Your task to perform on an android device: turn pop-ups off in chrome Image 0: 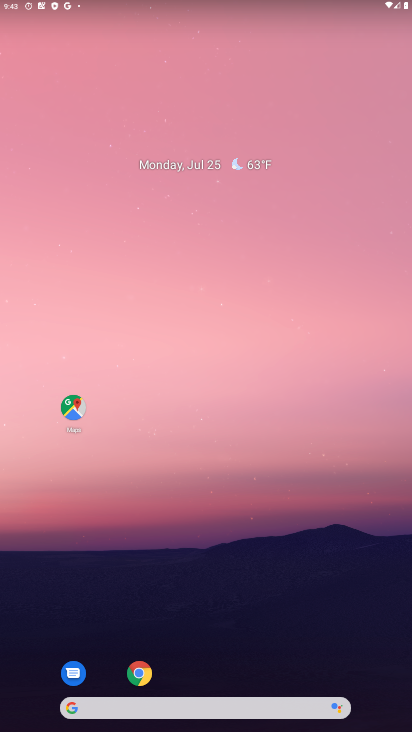
Step 0: click (130, 680)
Your task to perform on an android device: turn pop-ups off in chrome Image 1: 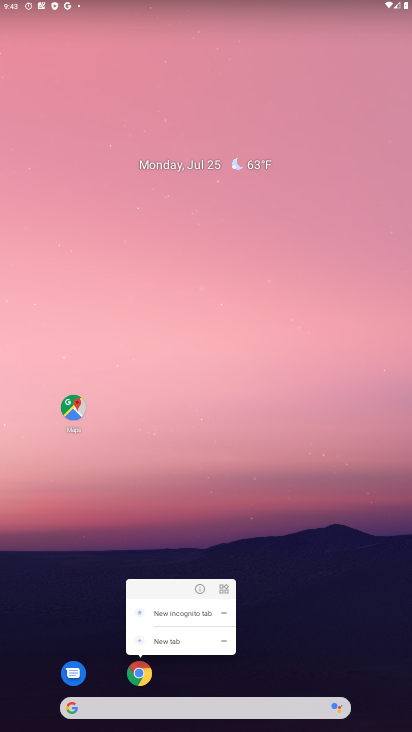
Step 1: click (201, 592)
Your task to perform on an android device: turn pop-ups off in chrome Image 2: 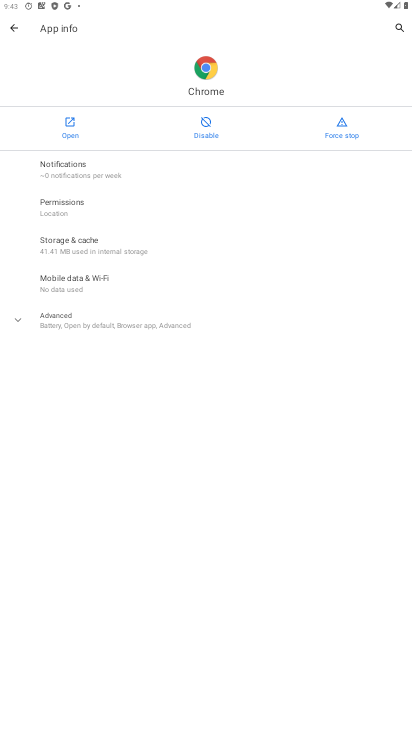
Step 2: click (62, 129)
Your task to perform on an android device: turn pop-ups off in chrome Image 3: 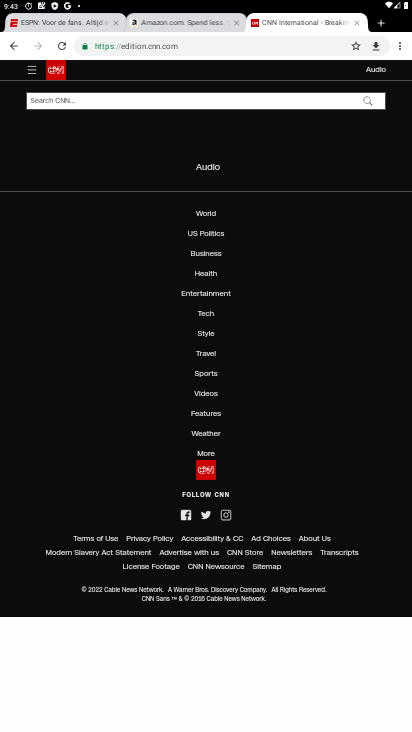
Step 3: drag from (242, 249) to (306, 684)
Your task to perform on an android device: turn pop-ups off in chrome Image 4: 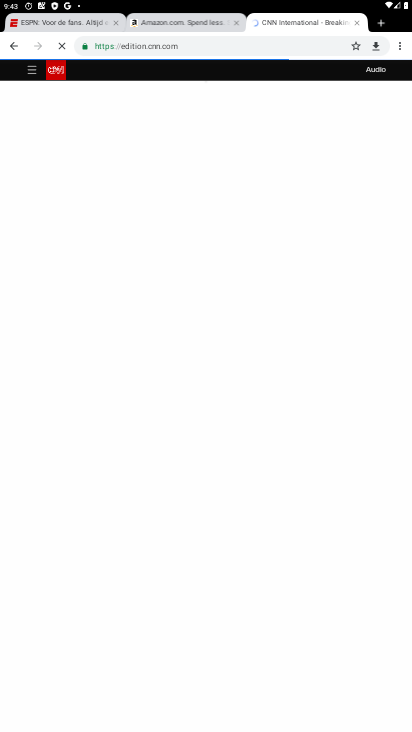
Step 4: drag from (403, 43) to (326, 301)
Your task to perform on an android device: turn pop-ups off in chrome Image 5: 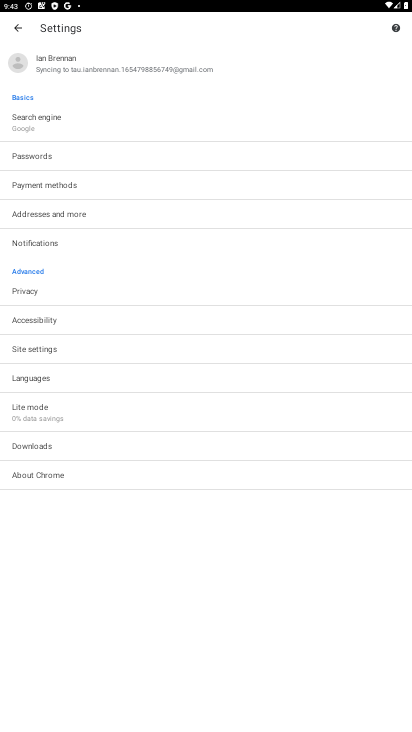
Step 5: click (40, 354)
Your task to perform on an android device: turn pop-ups off in chrome Image 6: 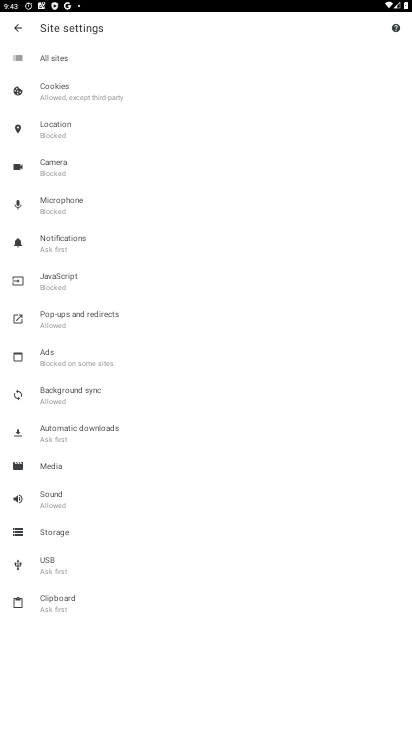
Step 6: click (63, 318)
Your task to perform on an android device: turn pop-ups off in chrome Image 7: 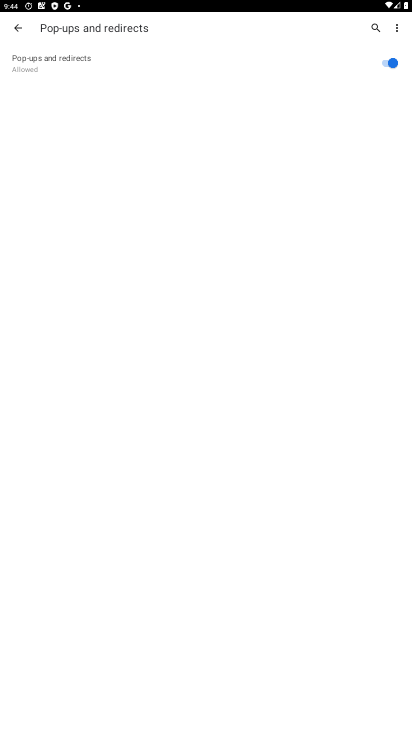
Step 7: click (383, 64)
Your task to perform on an android device: turn pop-ups off in chrome Image 8: 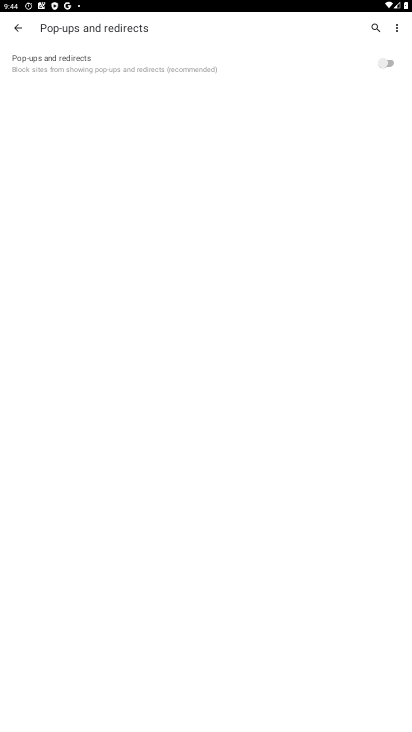
Step 8: task complete